Your task to perform on an android device: Search for a new perfume Image 0: 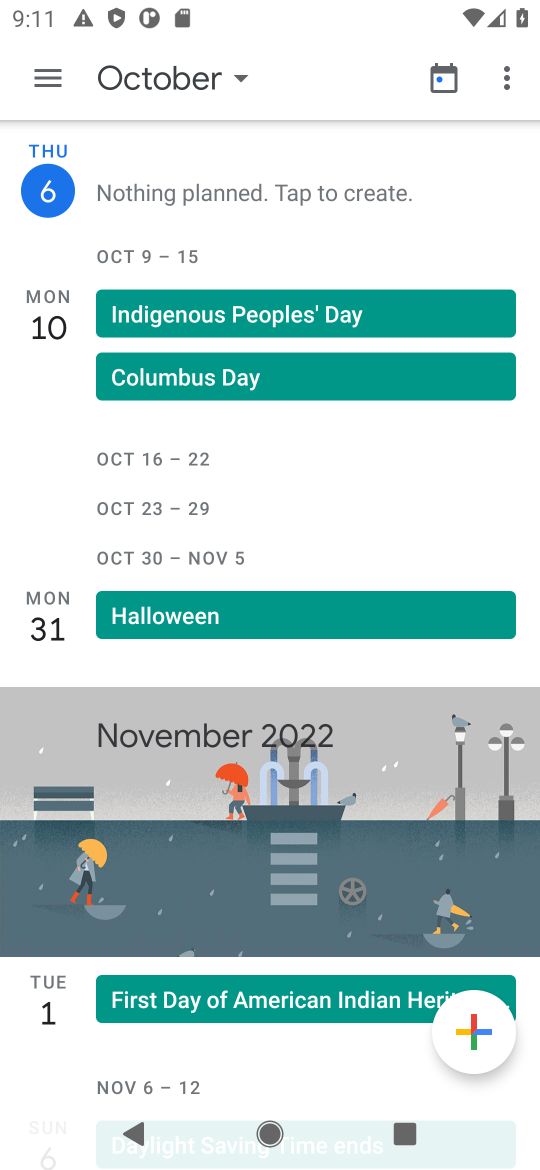
Step 0: press home button
Your task to perform on an android device: Search for a new perfume Image 1: 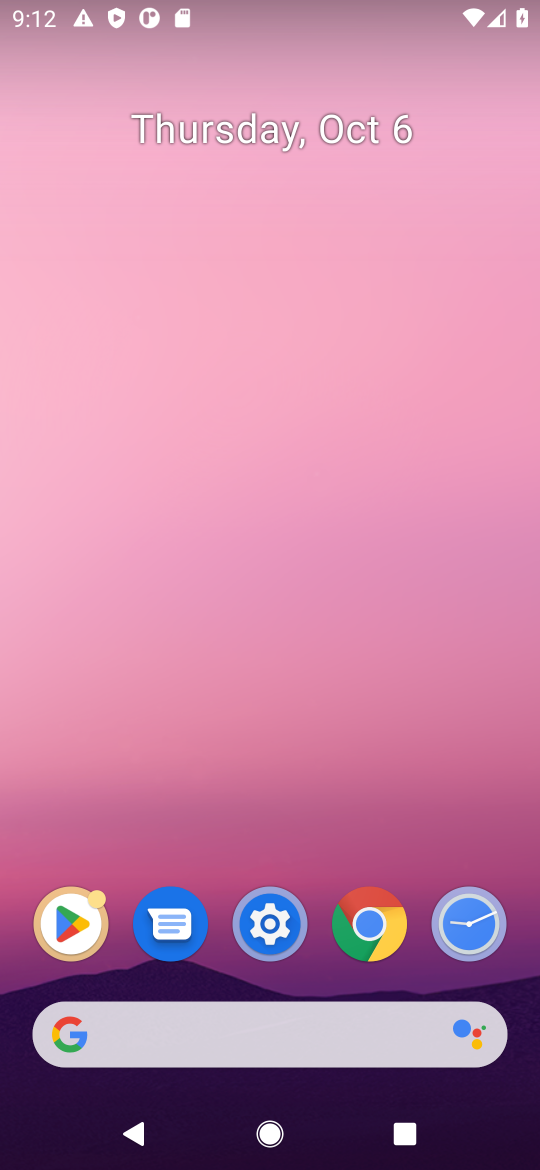
Step 1: click (366, 932)
Your task to perform on an android device: Search for a new perfume Image 2: 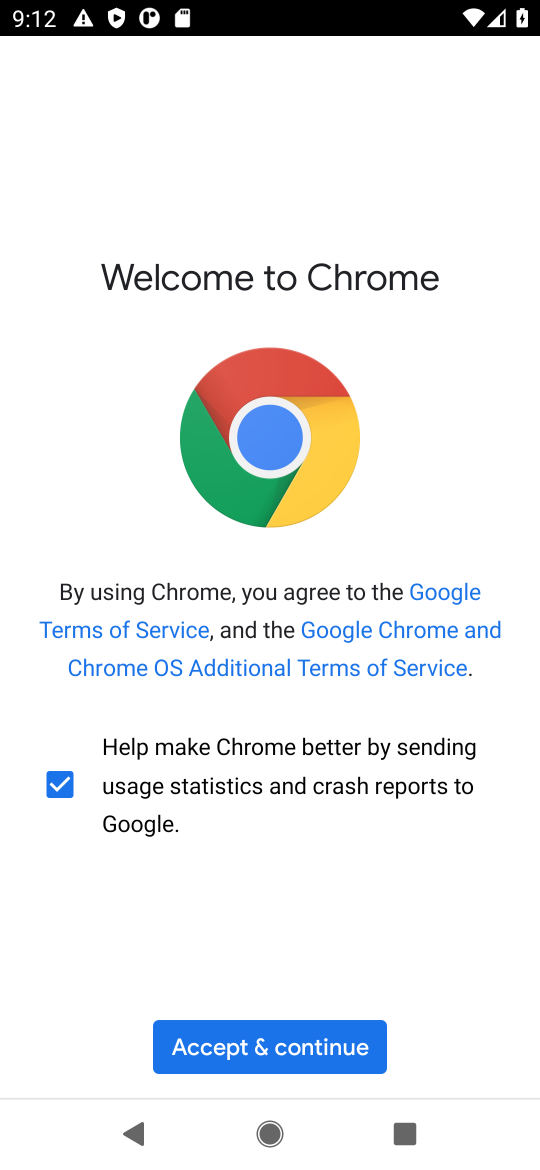
Step 2: click (294, 1048)
Your task to perform on an android device: Search for a new perfume Image 3: 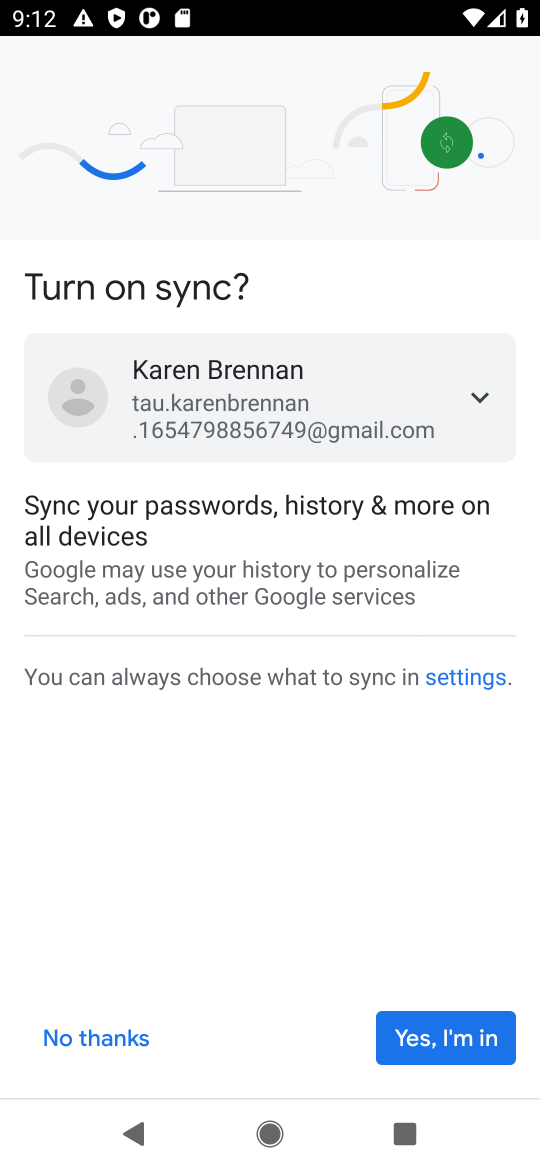
Step 3: click (461, 1047)
Your task to perform on an android device: Search for a new perfume Image 4: 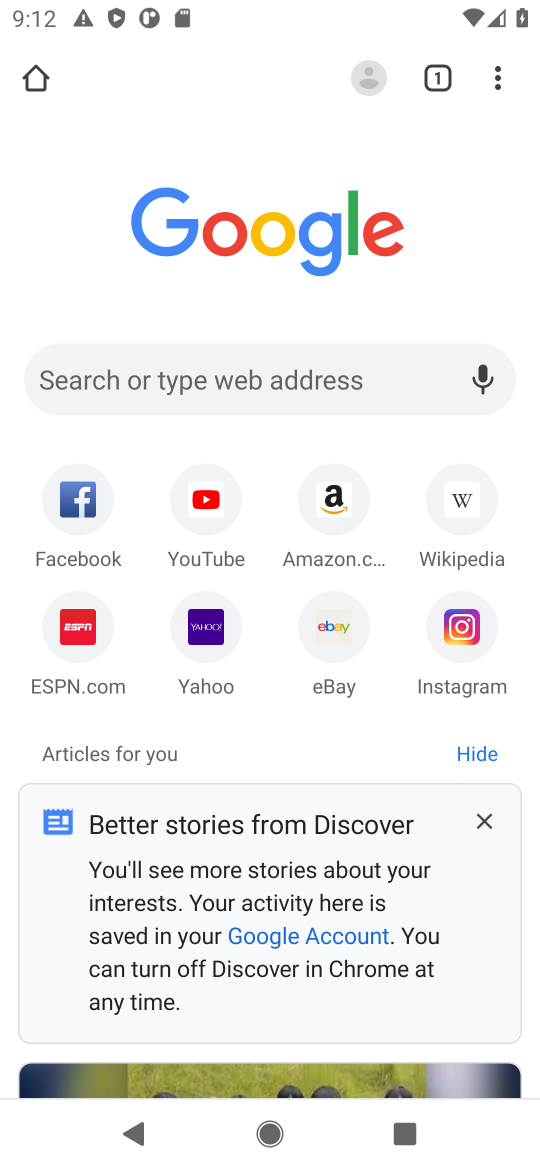
Step 4: click (229, 374)
Your task to perform on an android device: Search for a new perfume Image 5: 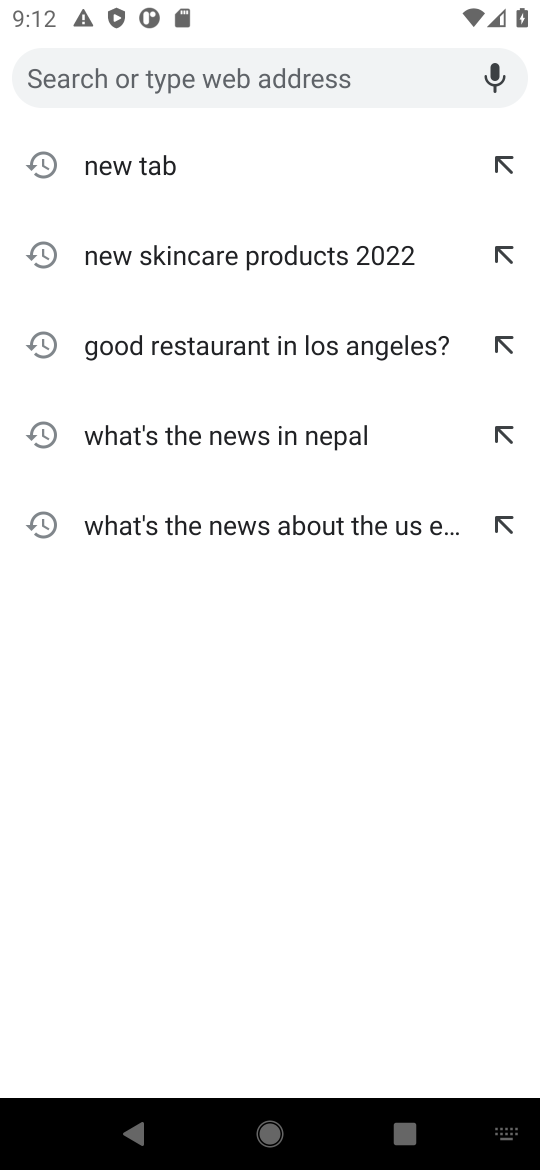
Step 5: type "Search for a new perfume"
Your task to perform on an android device: Search for a new perfume Image 6: 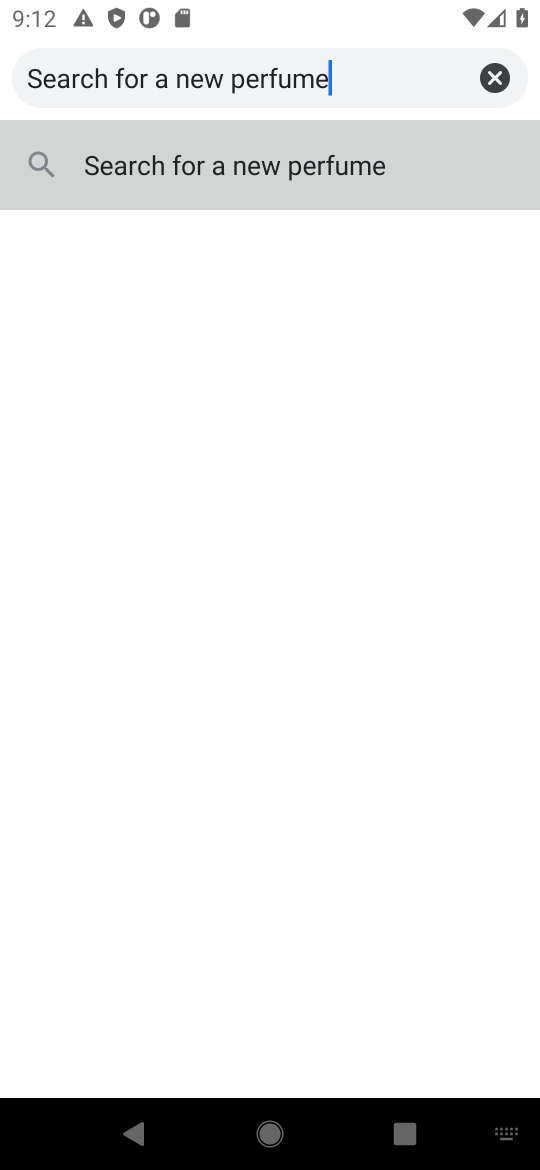
Step 6: click (303, 135)
Your task to perform on an android device: Search for a new perfume Image 7: 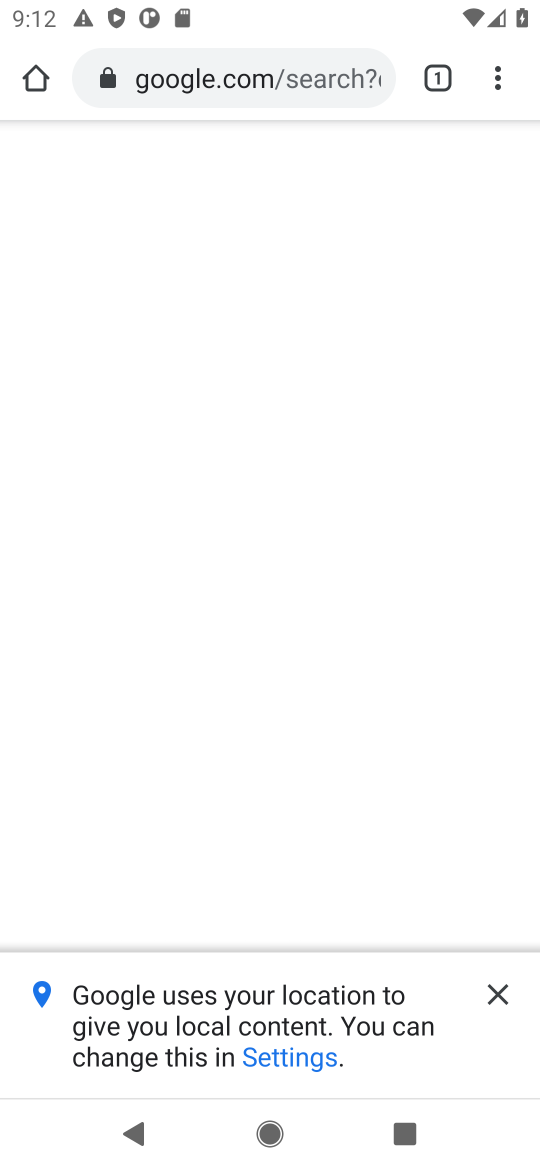
Step 7: click (499, 994)
Your task to perform on an android device: Search for a new perfume Image 8: 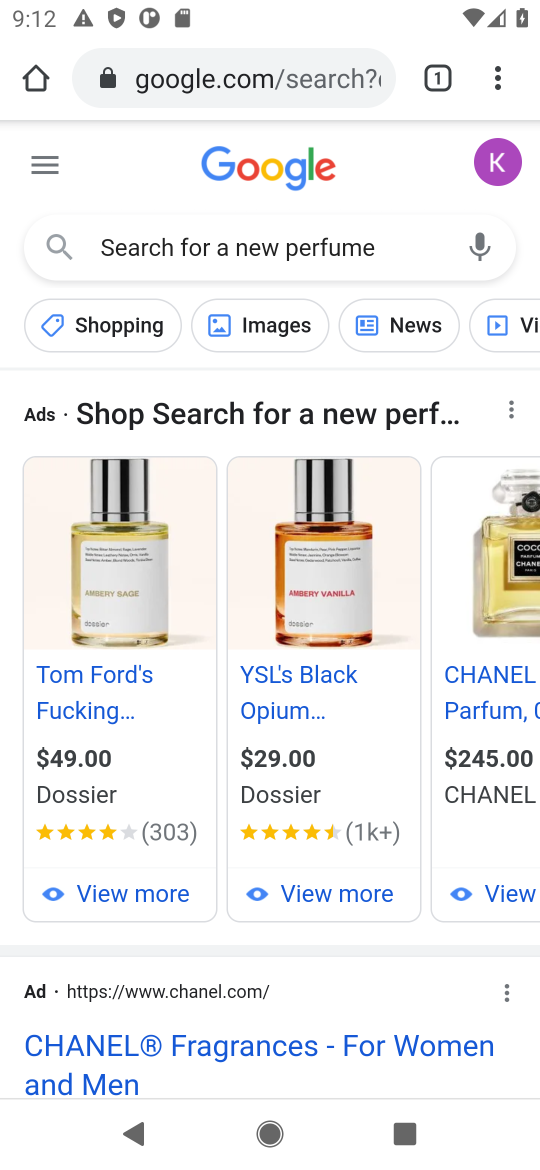
Step 8: drag from (200, 935) to (408, 368)
Your task to perform on an android device: Search for a new perfume Image 9: 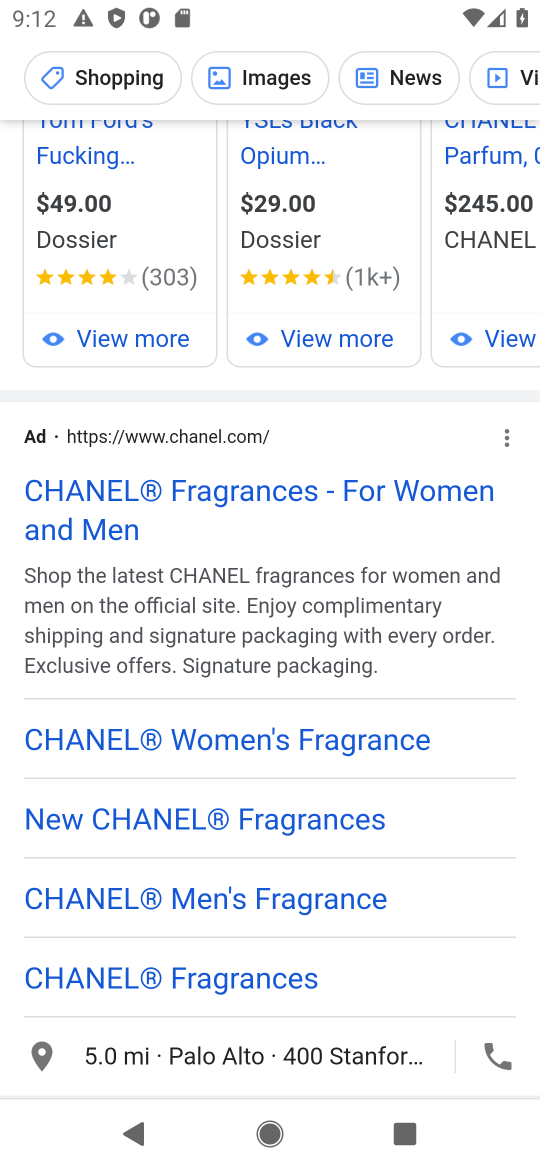
Step 9: drag from (227, 888) to (392, 157)
Your task to perform on an android device: Search for a new perfume Image 10: 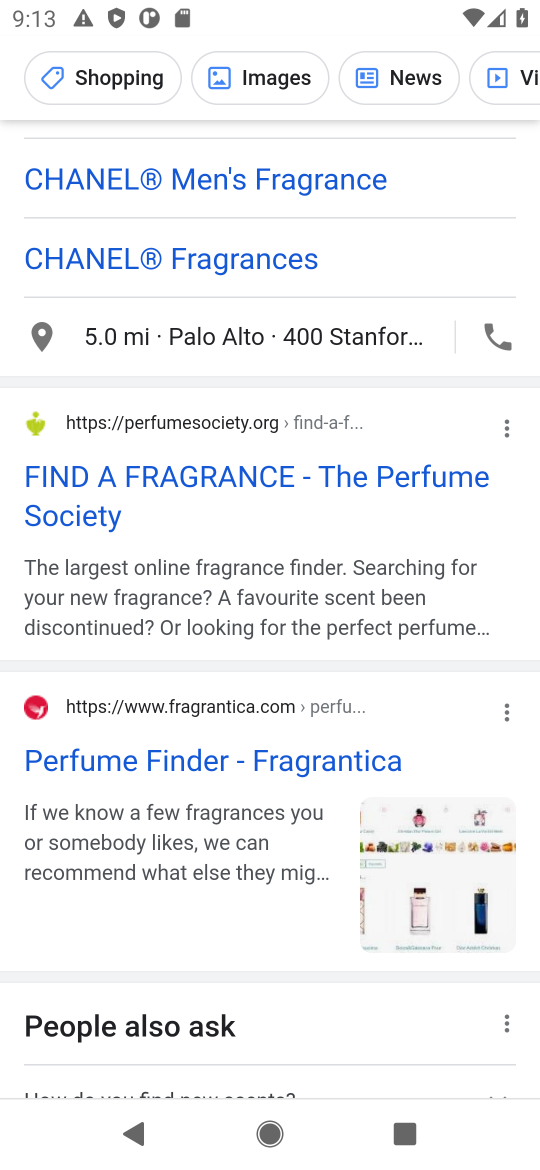
Step 10: click (205, 766)
Your task to perform on an android device: Search for a new perfume Image 11: 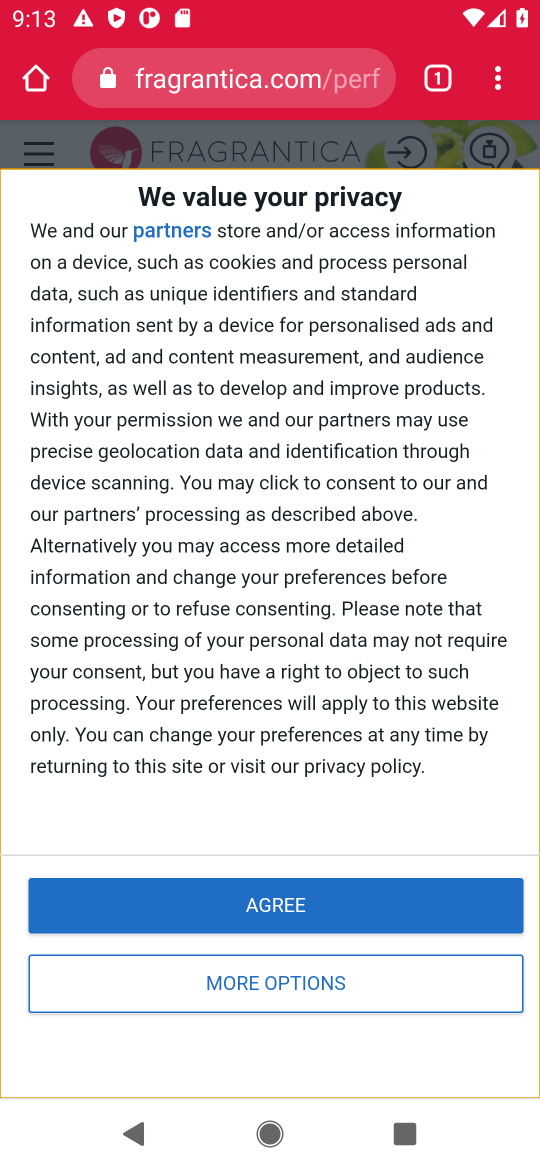
Step 11: click (296, 913)
Your task to perform on an android device: Search for a new perfume Image 12: 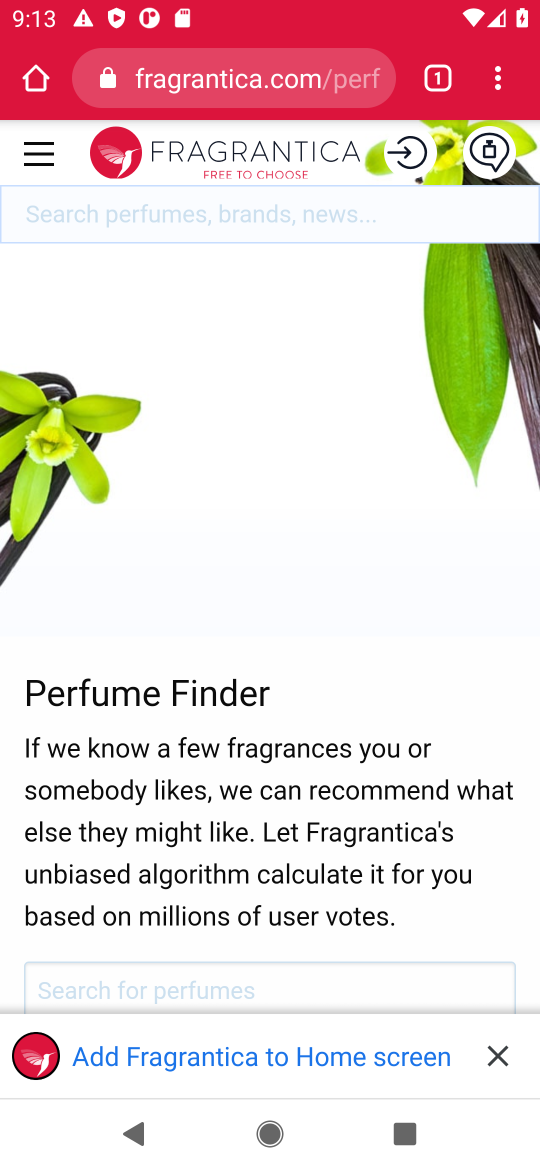
Step 12: task complete